Your task to perform on an android device: Open calendar and show me the second week of next month Image 0: 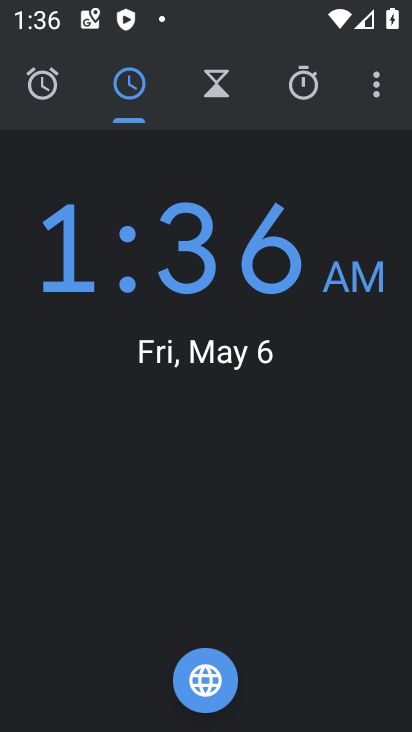
Step 0: press home button
Your task to perform on an android device: Open calendar and show me the second week of next month Image 1: 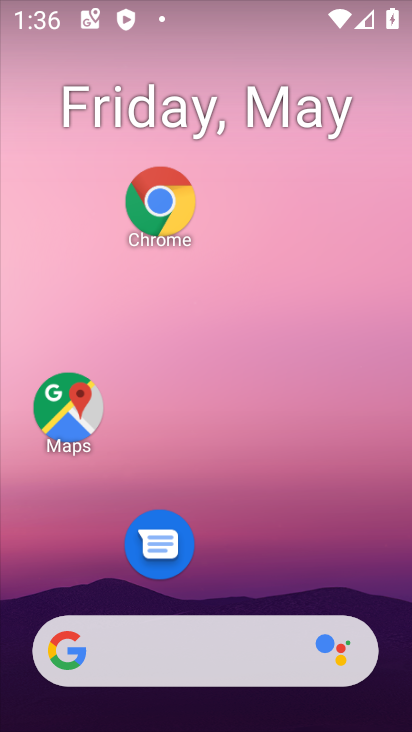
Step 1: drag from (240, 537) to (251, 143)
Your task to perform on an android device: Open calendar and show me the second week of next month Image 2: 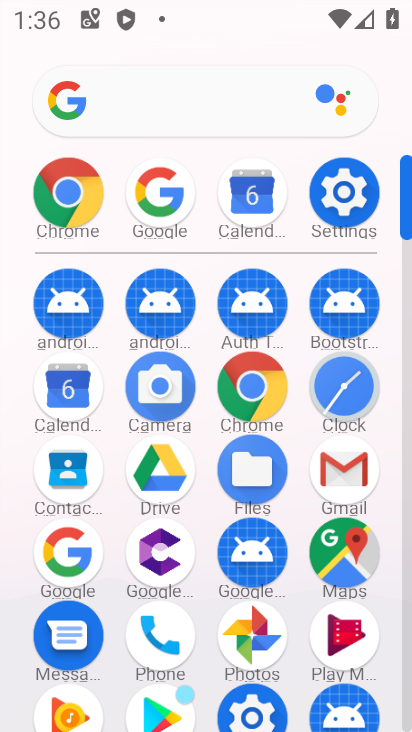
Step 2: click (78, 411)
Your task to perform on an android device: Open calendar and show me the second week of next month Image 3: 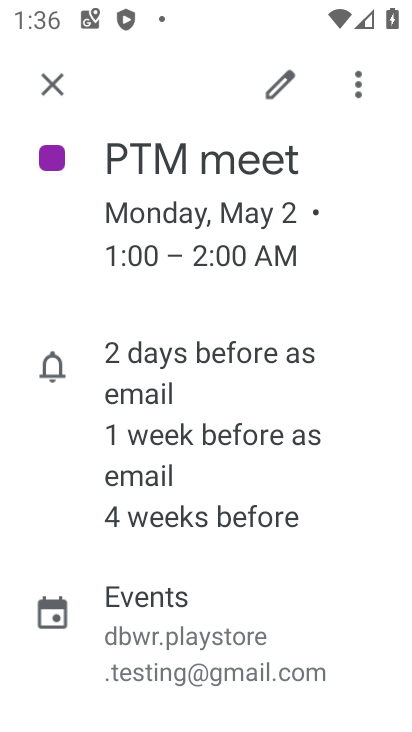
Step 3: click (49, 90)
Your task to perform on an android device: Open calendar and show me the second week of next month Image 4: 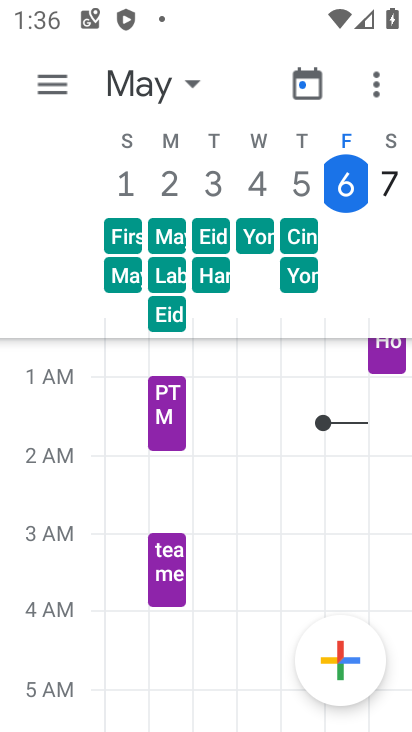
Step 4: click (155, 84)
Your task to perform on an android device: Open calendar and show me the second week of next month Image 5: 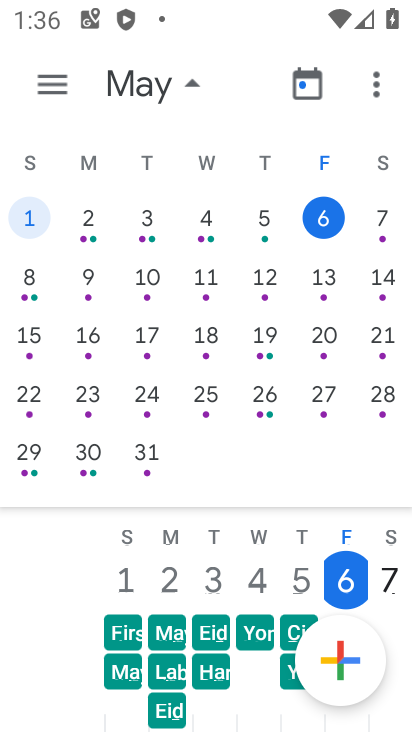
Step 5: drag from (285, 291) to (0, 357)
Your task to perform on an android device: Open calendar and show me the second week of next month Image 6: 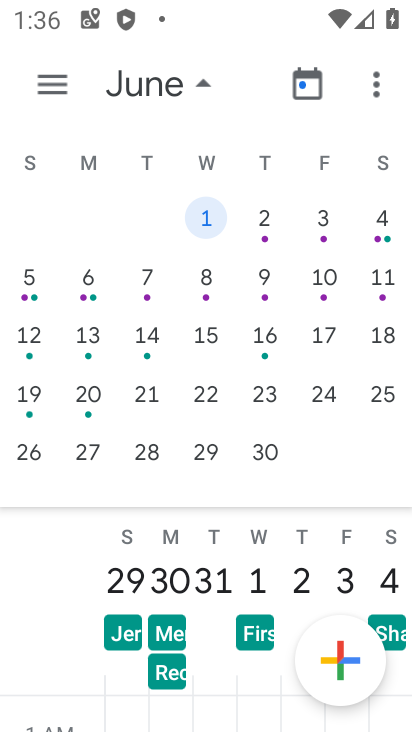
Step 6: click (36, 290)
Your task to perform on an android device: Open calendar and show me the second week of next month Image 7: 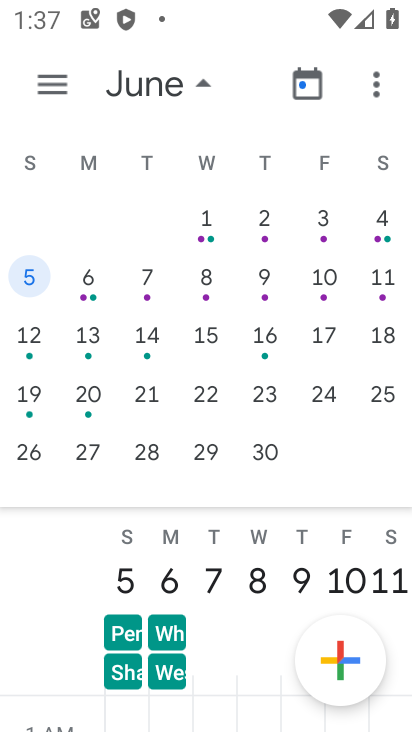
Step 7: task complete